Your task to perform on an android device: Go to ESPN.com Image 0: 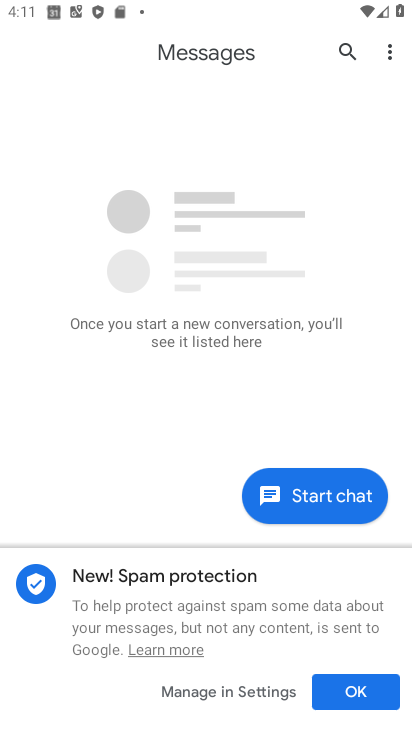
Step 0: press home button
Your task to perform on an android device: Go to ESPN.com Image 1: 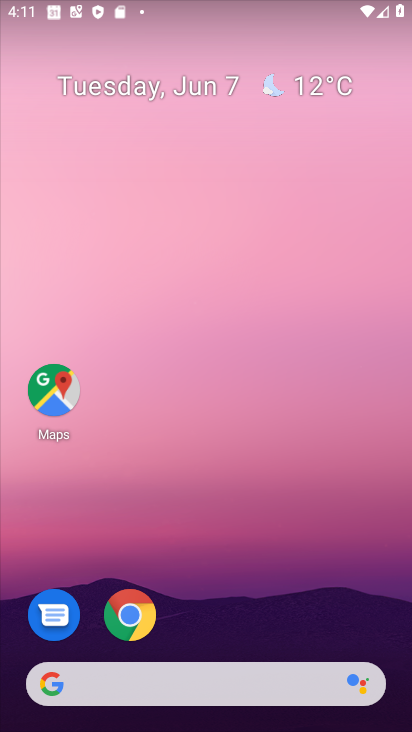
Step 1: drag from (210, 610) to (331, 57)
Your task to perform on an android device: Go to ESPN.com Image 2: 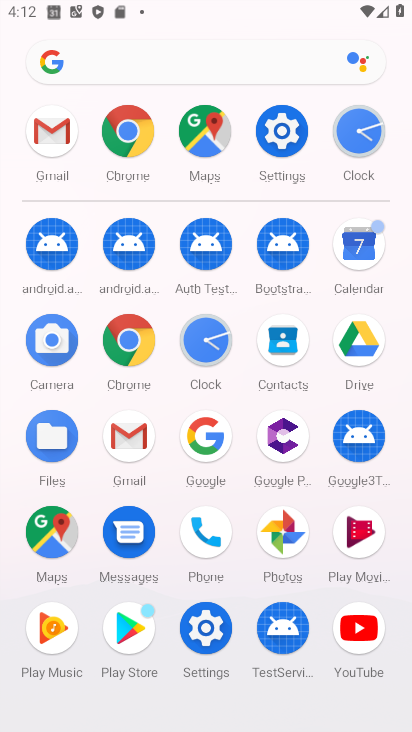
Step 2: click (116, 363)
Your task to perform on an android device: Go to ESPN.com Image 3: 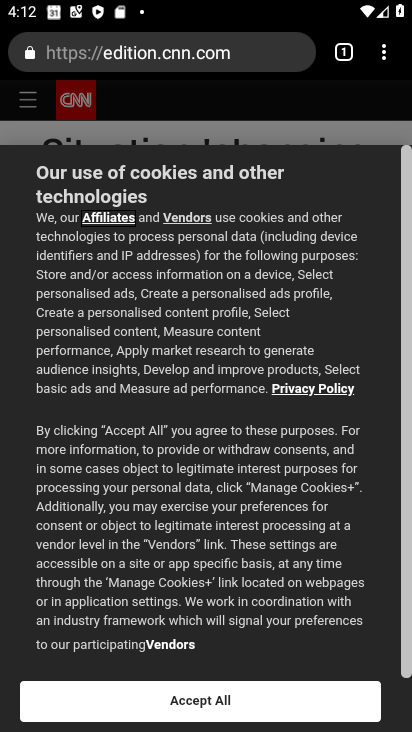
Step 3: click (173, 50)
Your task to perform on an android device: Go to ESPN.com Image 4: 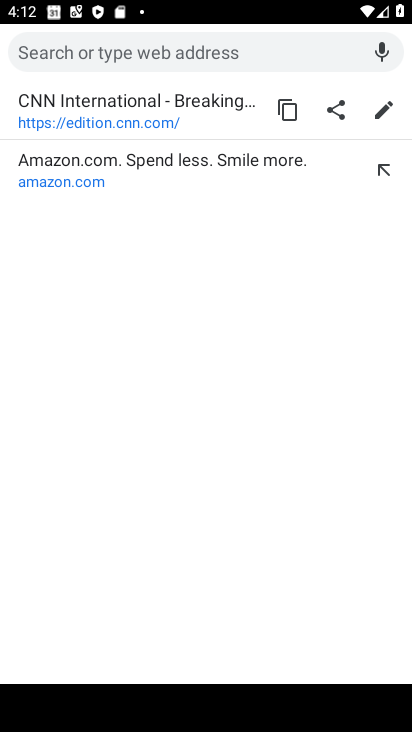
Step 4: type "espn.com"
Your task to perform on an android device: Go to ESPN.com Image 5: 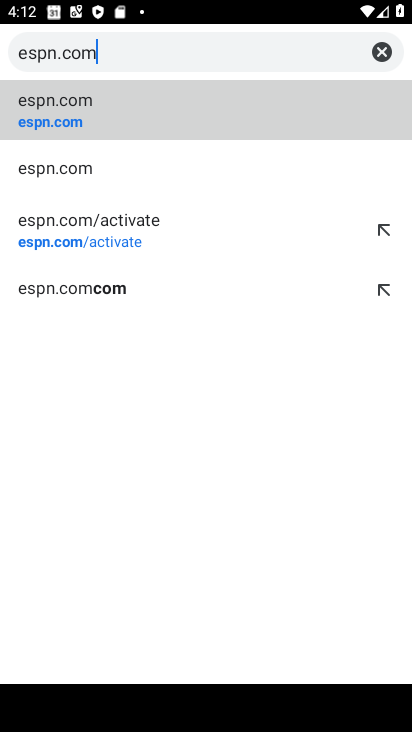
Step 5: click (56, 117)
Your task to perform on an android device: Go to ESPN.com Image 6: 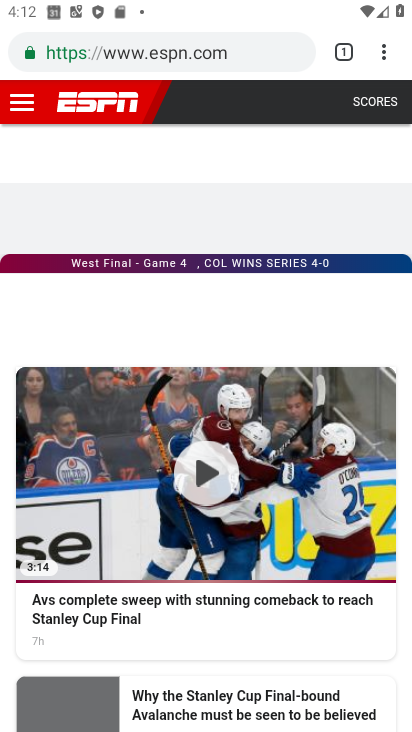
Step 6: task complete